Your task to perform on an android device: Open calendar and show me the first week of next month Image 0: 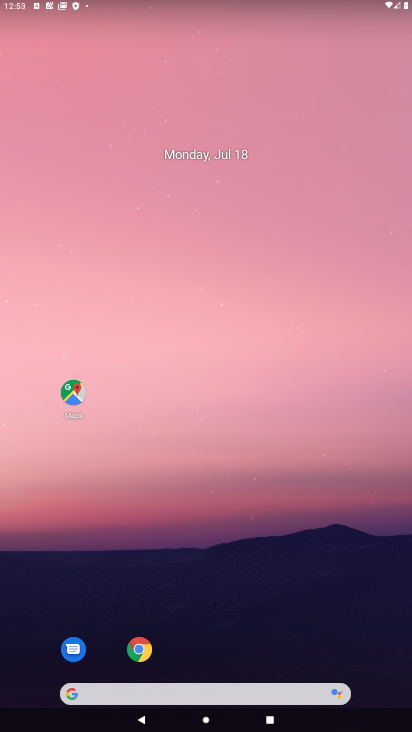
Step 0: drag from (364, 652) to (335, 35)
Your task to perform on an android device: Open calendar and show me the first week of next month Image 1: 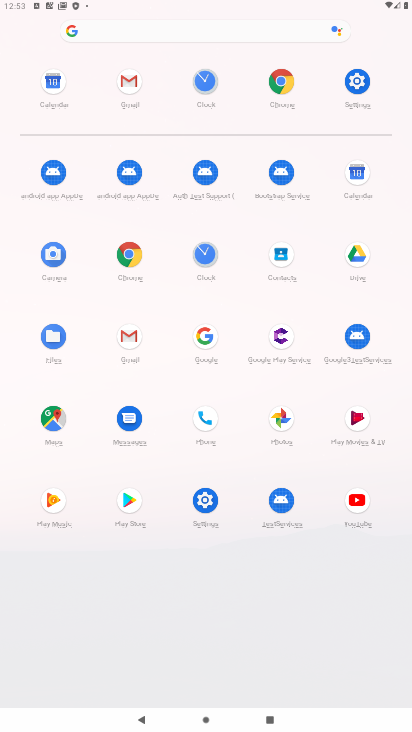
Step 1: click (357, 173)
Your task to perform on an android device: Open calendar and show me the first week of next month Image 2: 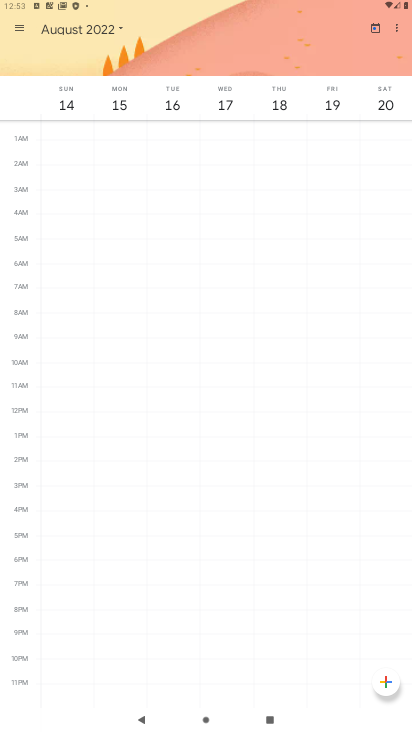
Step 2: click (116, 29)
Your task to perform on an android device: Open calendar and show me the first week of next month Image 3: 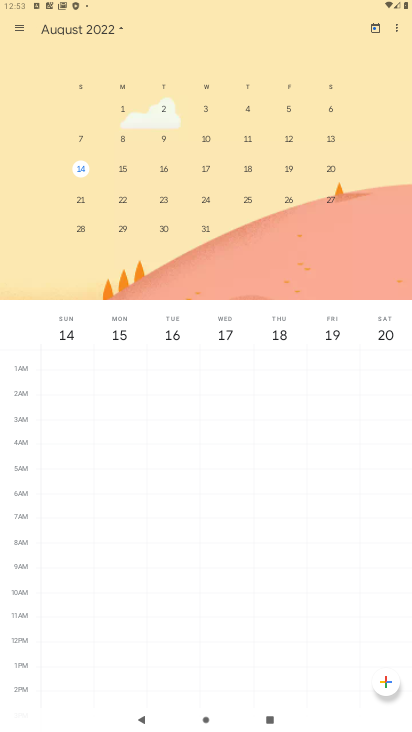
Step 3: click (77, 137)
Your task to perform on an android device: Open calendar and show me the first week of next month Image 4: 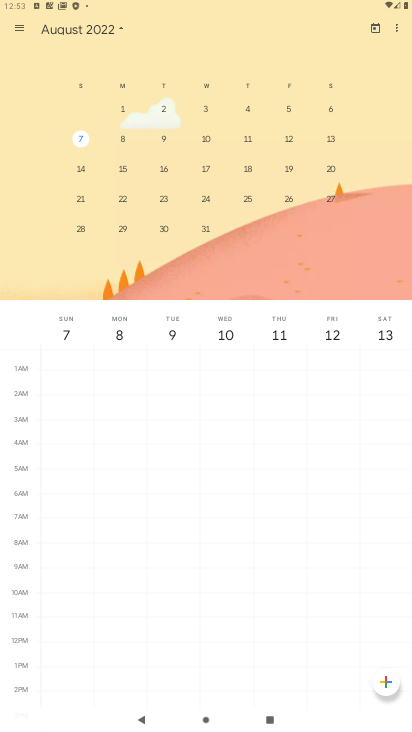
Step 4: task complete